Your task to perform on an android device: Go to Yahoo.com Image 0: 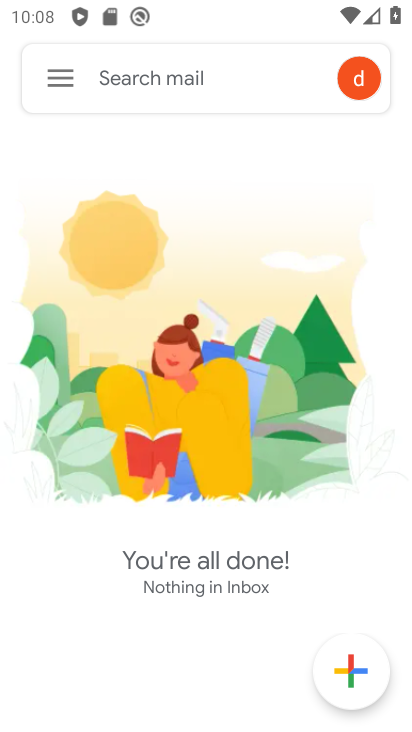
Step 0: press home button
Your task to perform on an android device: Go to Yahoo.com Image 1: 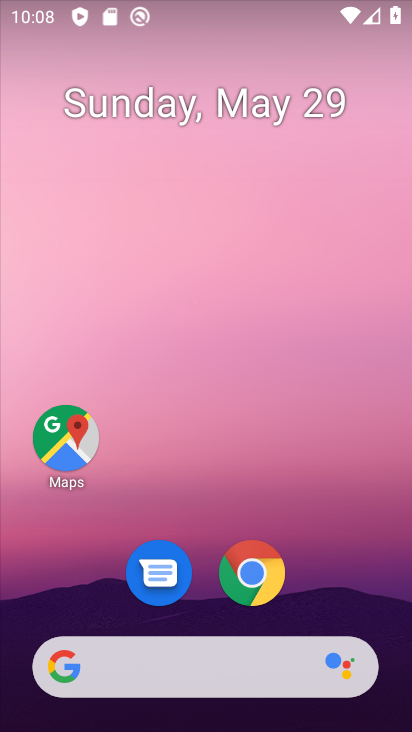
Step 1: click (259, 583)
Your task to perform on an android device: Go to Yahoo.com Image 2: 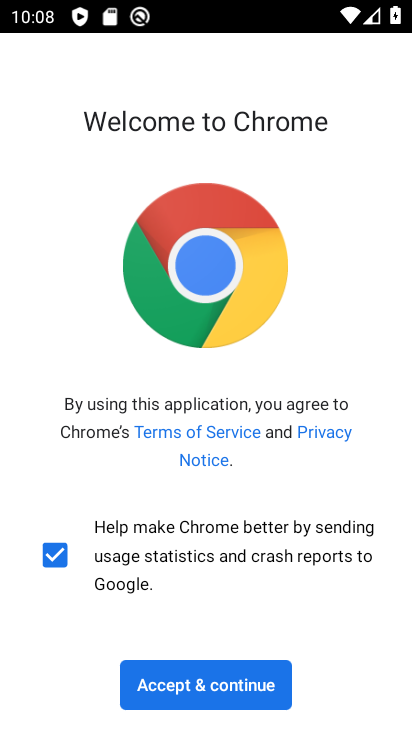
Step 2: click (251, 687)
Your task to perform on an android device: Go to Yahoo.com Image 3: 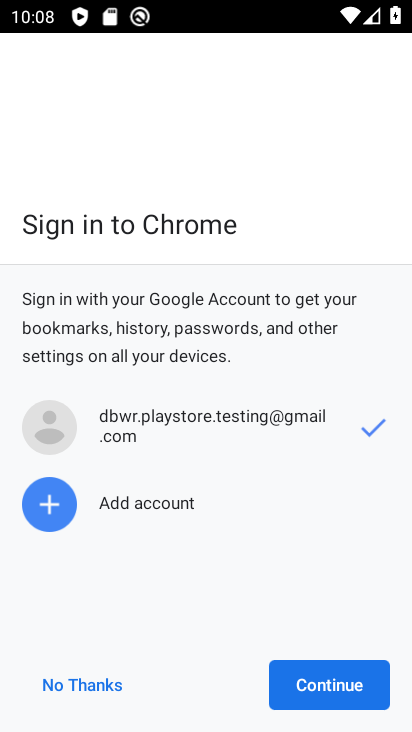
Step 3: click (360, 685)
Your task to perform on an android device: Go to Yahoo.com Image 4: 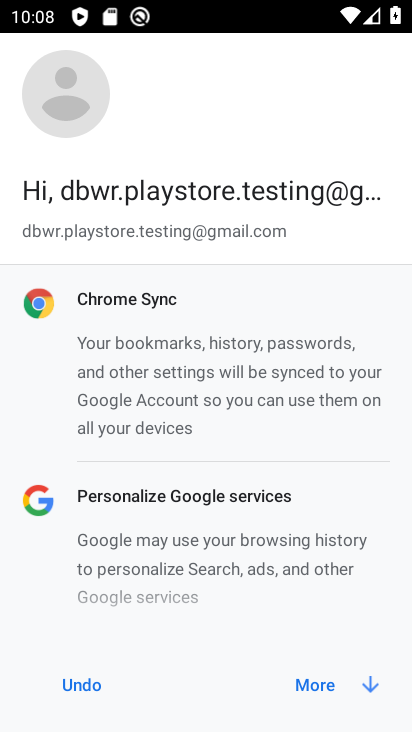
Step 4: click (360, 685)
Your task to perform on an android device: Go to Yahoo.com Image 5: 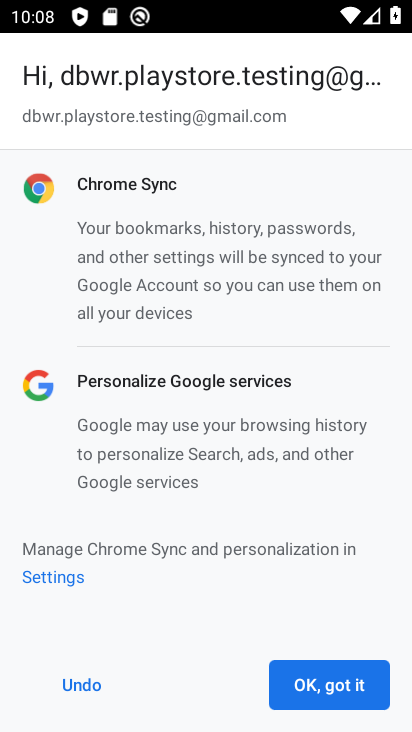
Step 5: click (360, 685)
Your task to perform on an android device: Go to Yahoo.com Image 6: 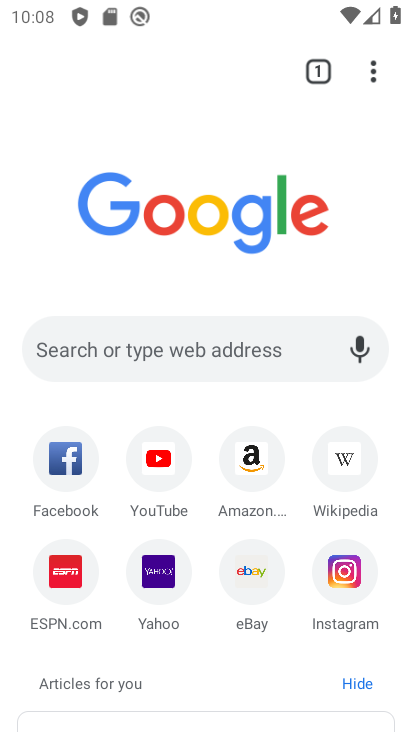
Step 6: click (164, 591)
Your task to perform on an android device: Go to Yahoo.com Image 7: 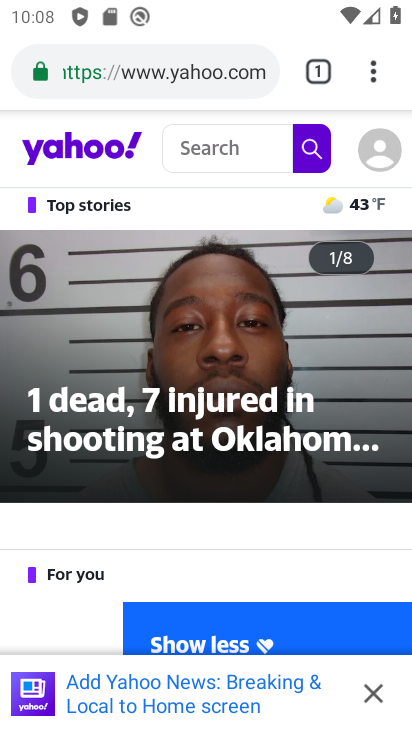
Step 7: task complete